Your task to perform on an android device: Open Wikipedia Image 0: 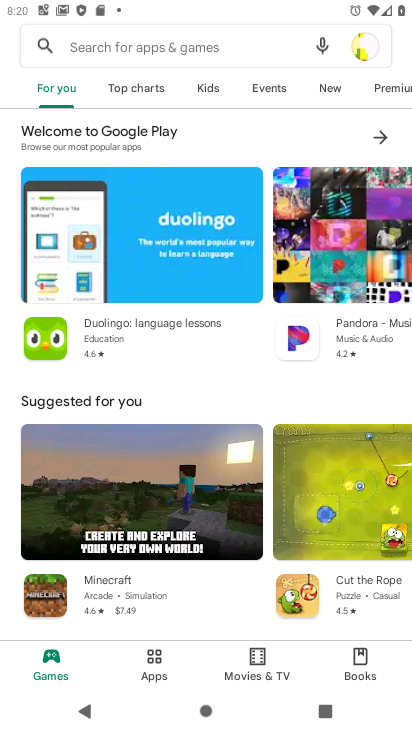
Step 0: press home button
Your task to perform on an android device: Open Wikipedia Image 1: 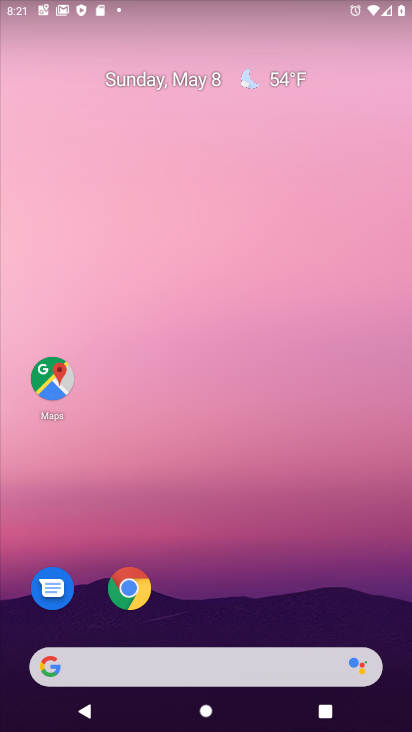
Step 1: click (133, 589)
Your task to perform on an android device: Open Wikipedia Image 2: 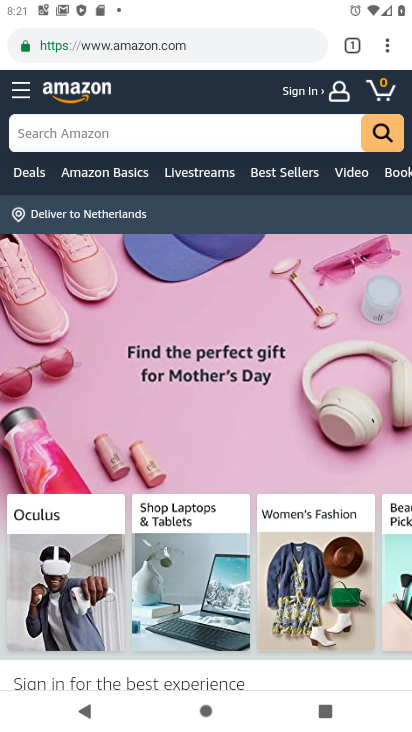
Step 2: click (355, 51)
Your task to perform on an android device: Open Wikipedia Image 3: 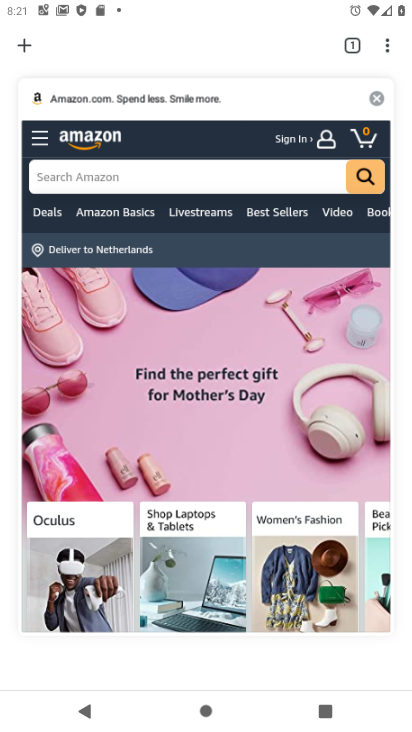
Step 3: click (375, 102)
Your task to perform on an android device: Open Wikipedia Image 4: 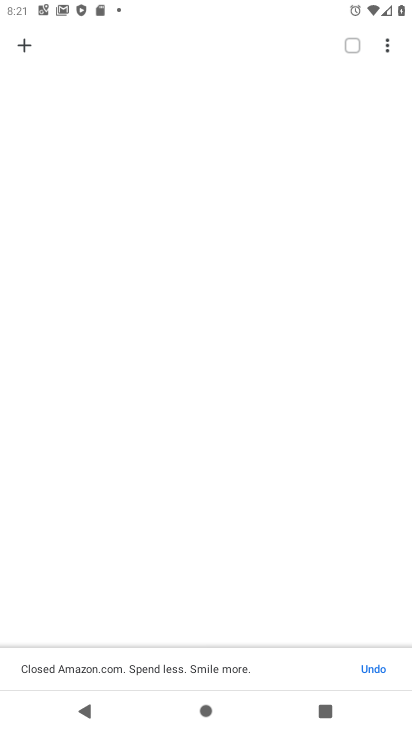
Step 4: click (30, 46)
Your task to perform on an android device: Open Wikipedia Image 5: 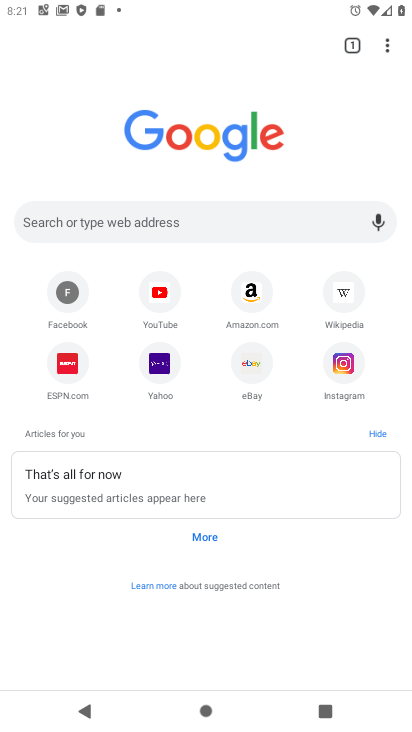
Step 5: click (335, 285)
Your task to perform on an android device: Open Wikipedia Image 6: 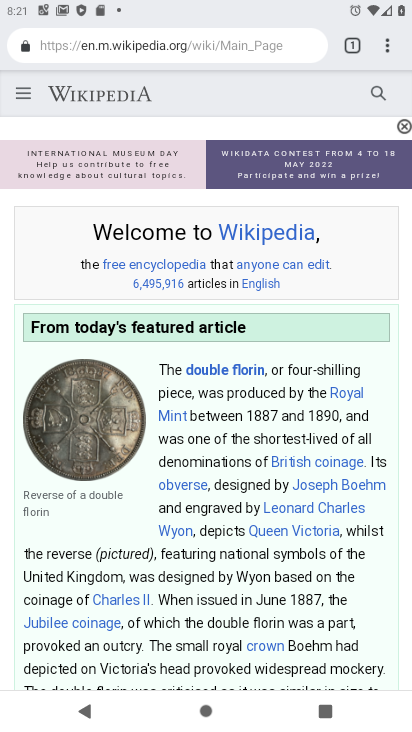
Step 6: task complete